Your task to perform on an android device: Go to settings Image 0: 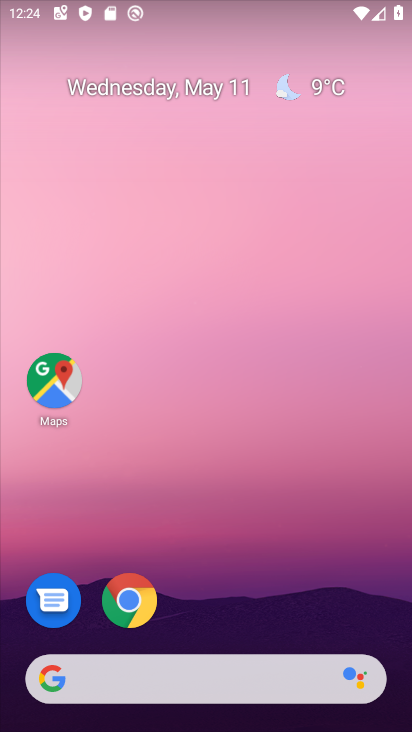
Step 0: drag from (325, 726) to (321, 103)
Your task to perform on an android device: Go to settings Image 1: 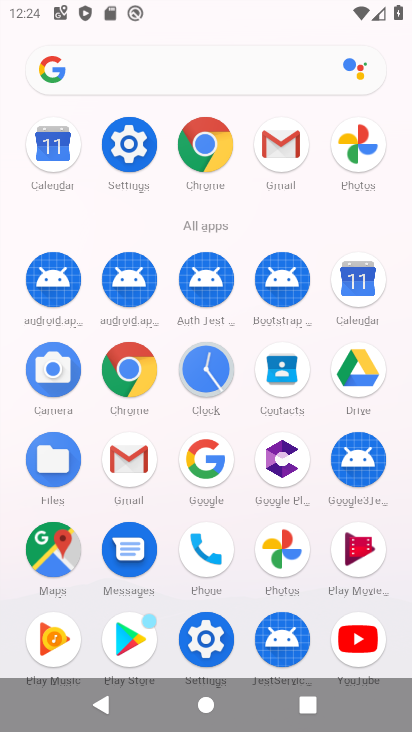
Step 1: click (131, 143)
Your task to perform on an android device: Go to settings Image 2: 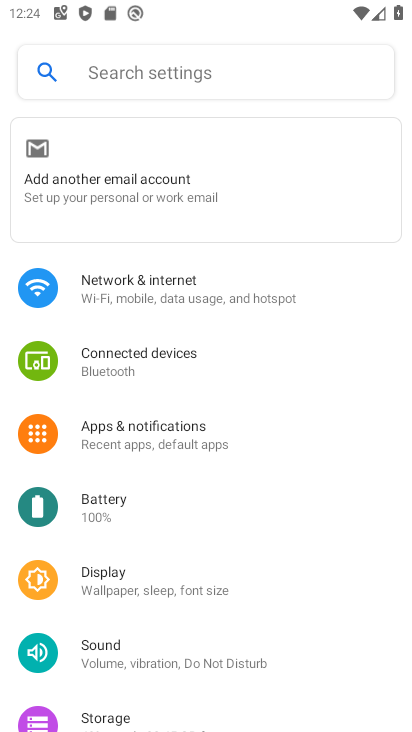
Step 2: task complete